Your task to perform on an android device: toggle airplane mode Image 0: 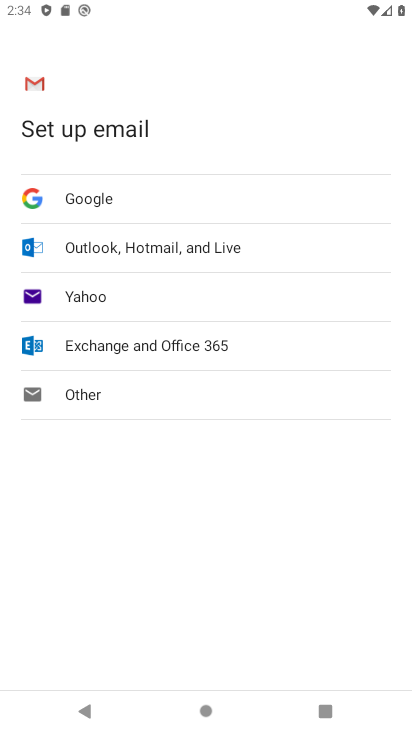
Step 0: press home button
Your task to perform on an android device: toggle airplane mode Image 1: 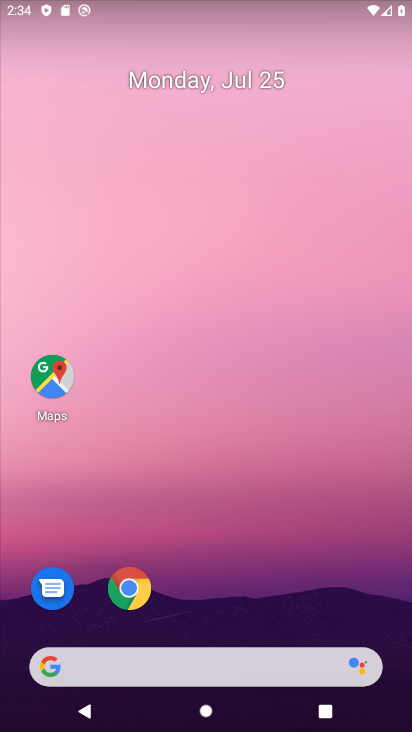
Step 1: drag from (234, 722) to (217, 176)
Your task to perform on an android device: toggle airplane mode Image 2: 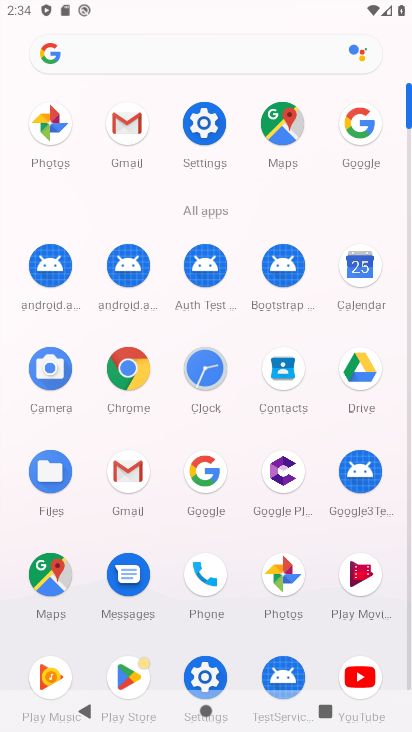
Step 2: click (194, 116)
Your task to perform on an android device: toggle airplane mode Image 3: 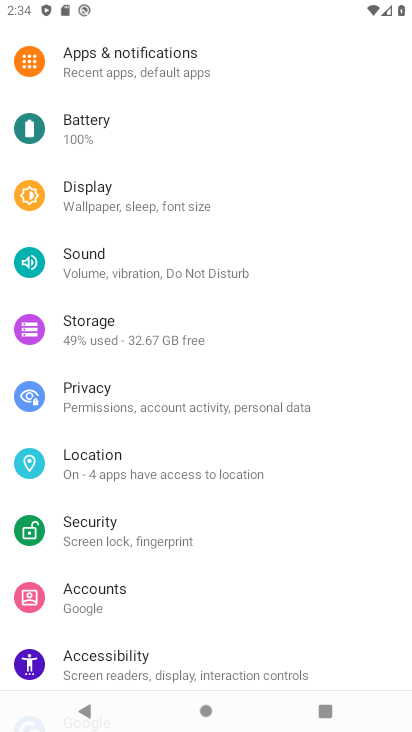
Step 3: drag from (112, 252) to (153, 555)
Your task to perform on an android device: toggle airplane mode Image 4: 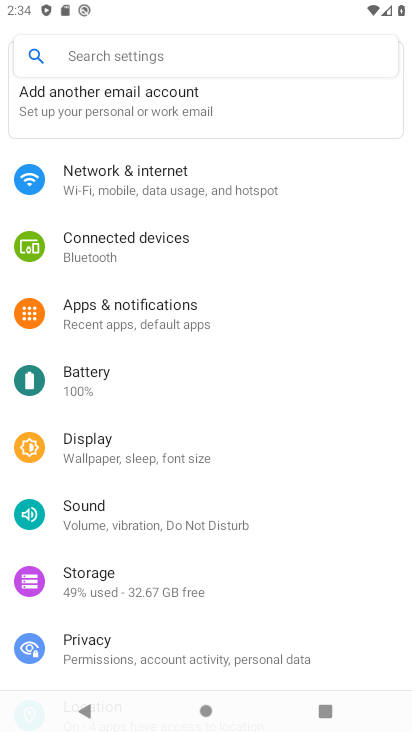
Step 4: drag from (155, 165) to (184, 611)
Your task to perform on an android device: toggle airplane mode Image 5: 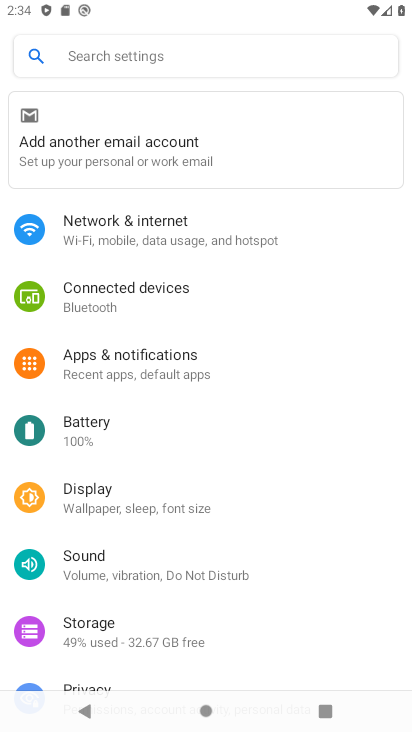
Step 5: click (128, 234)
Your task to perform on an android device: toggle airplane mode Image 6: 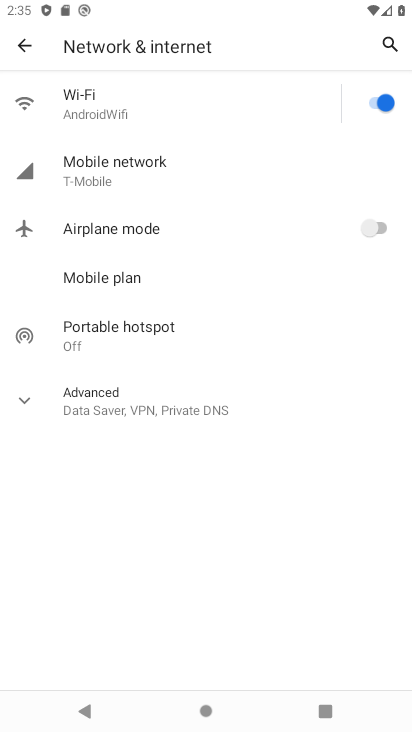
Step 6: click (372, 227)
Your task to perform on an android device: toggle airplane mode Image 7: 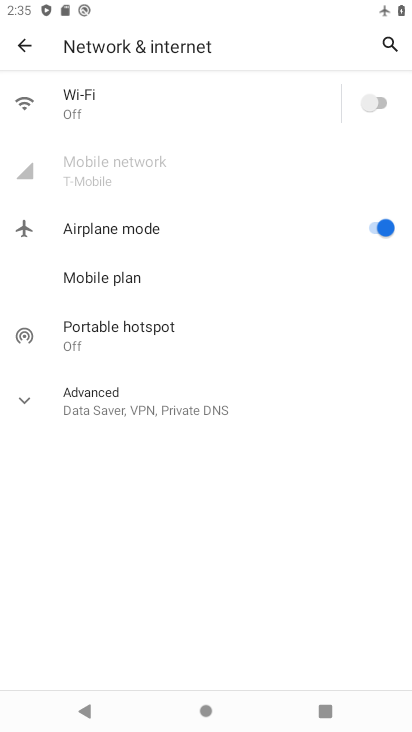
Step 7: task complete